Your task to perform on an android device: Go to Google Image 0: 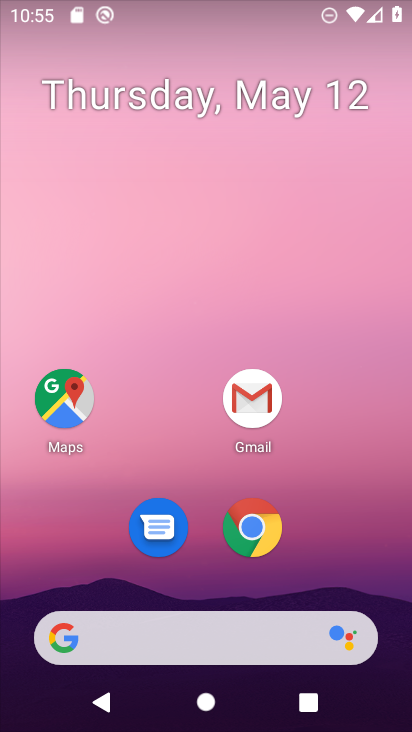
Step 0: click (246, 533)
Your task to perform on an android device: Go to Google Image 1: 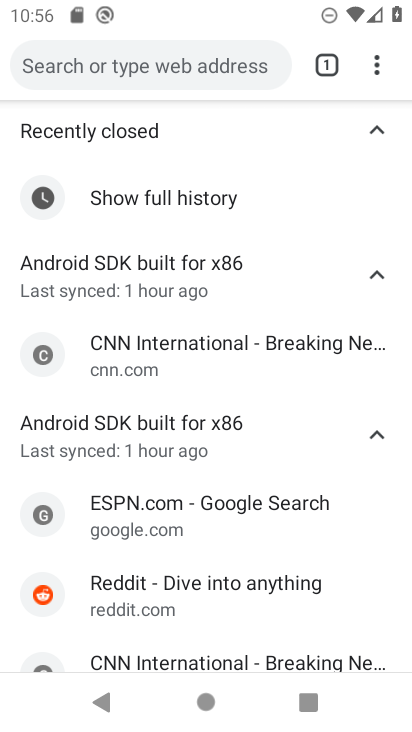
Step 1: click (203, 74)
Your task to perform on an android device: Go to Google Image 2: 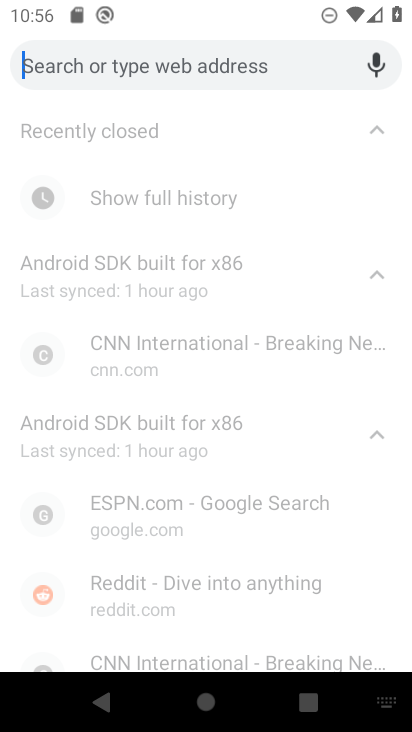
Step 2: type "google.com"
Your task to perform on an android device: Go to Google Image 3: 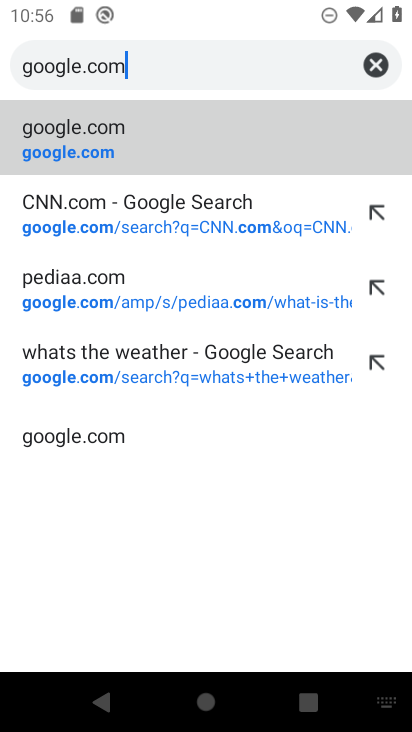
Step 3: click (158, 122)
Your task to perform on an android device: Go to Google Image 4: 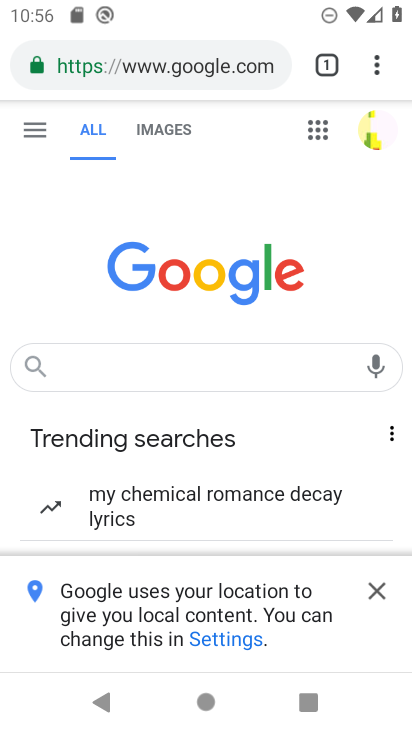
Step 4: task complete